Your task to perform on an android device: empty trash in the gmail app Image 0: 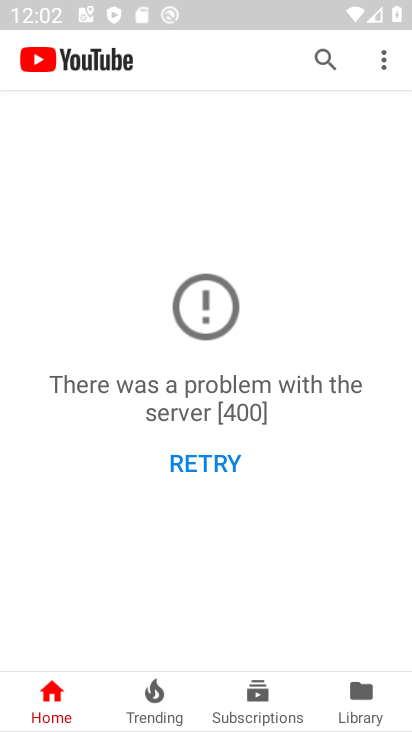
Step 0: press back button
Your task to perform on an android device: empty trash in the gmail app Image 1: 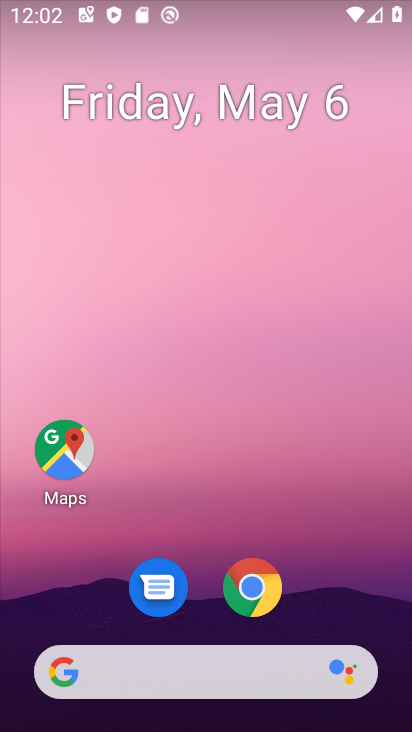
Step 1: drag from (148, 642) to (263, 56)
Your task to perform on an android device: empty trash in the gmail app Image 2: 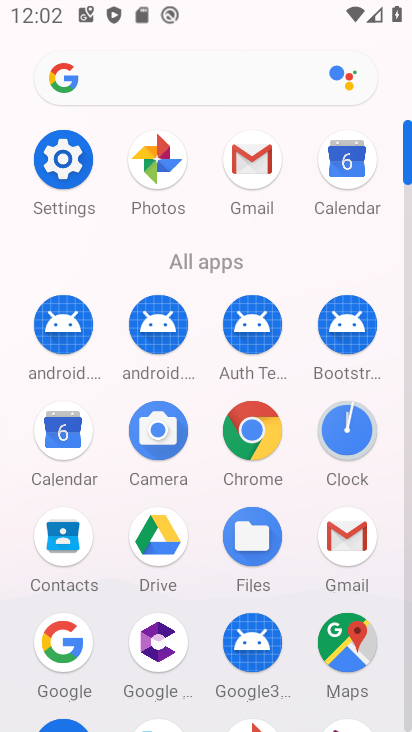
Step 2: click (235, 161)
Your task to perform on an android device: empty trash in the gmail app Image 3: 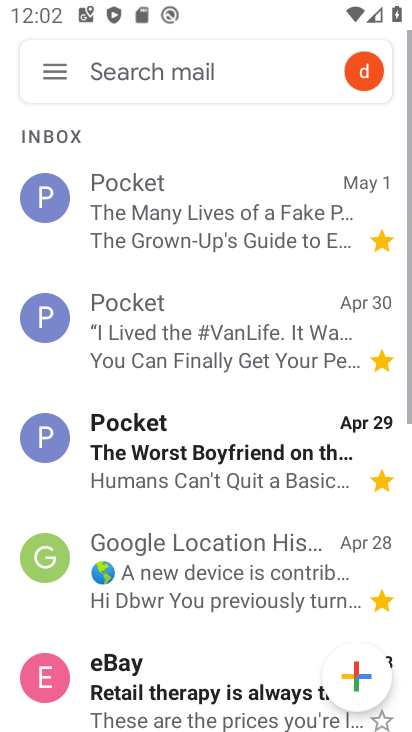
Step 3: click (54, 73)
Your task to perform on an android device: empty trash in the gmail app Image 4: 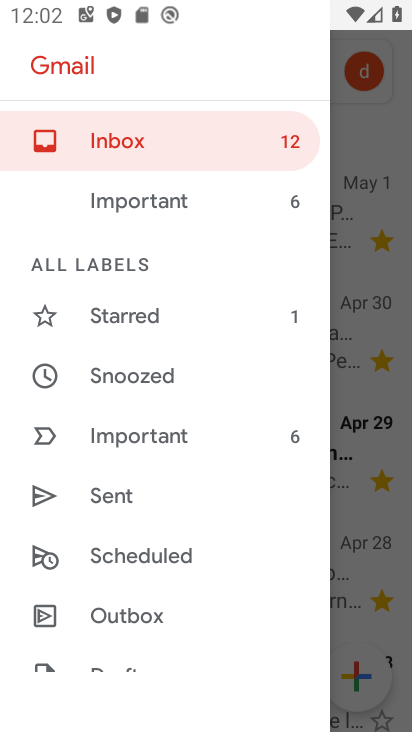
Step 4: drag from (165, 627) to (189, 57)
Your task to perform on an android device: empty trash in the gmail app Image 5: 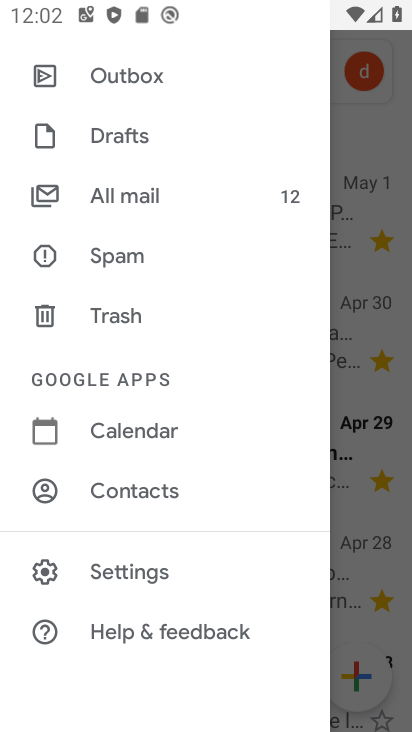
Step 5: click (118, 311)
Your task to perform on an android device: empty trash in the gmail app Image 6: 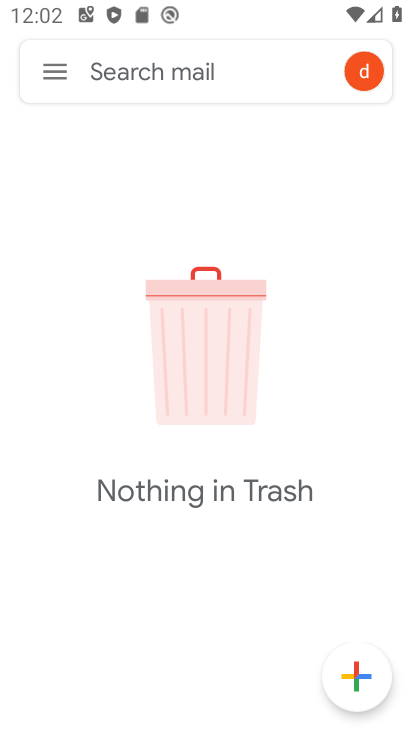
Step 6: task complete